Your task to perform on an android device: create a new album in the google photos Image 0: 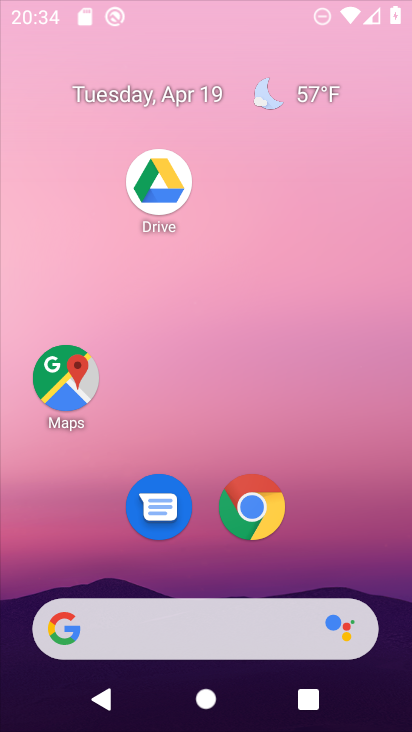
Step 0: drag from (349, 322) to (340, 147)
Your task to perform on an android device: create a new album in the google photos Image 1: 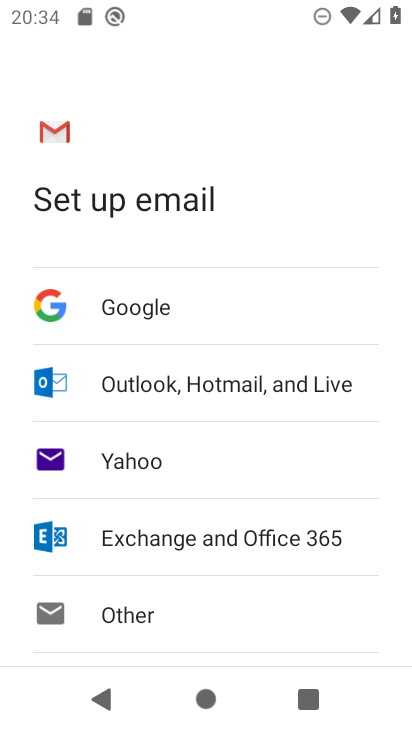
Step 1: press home button
Your task to perform on an android device: create a new album in the google photos Image 2: 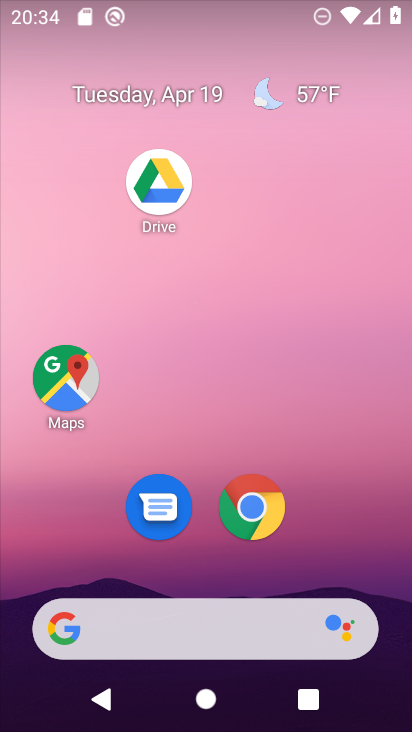
Step 2: drag from (333, 459) to (328, 134)
Your task to perform on an android device: create a new album in the google photos Image 3: 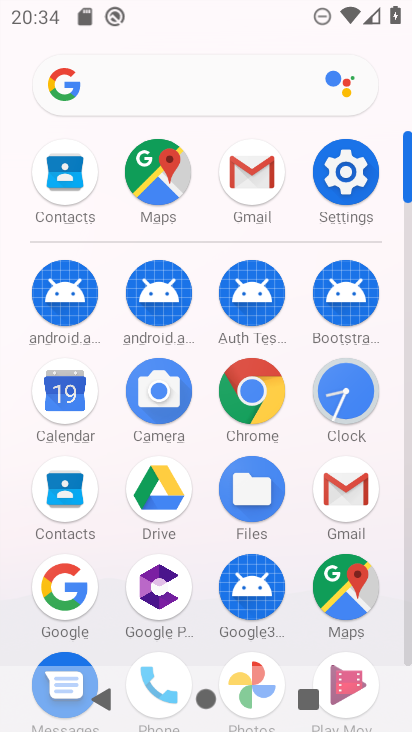
Step 3: drag from (295, 430) to (314, 98)
Your task to perform on an android device: create a new album in the google photos Image 4: 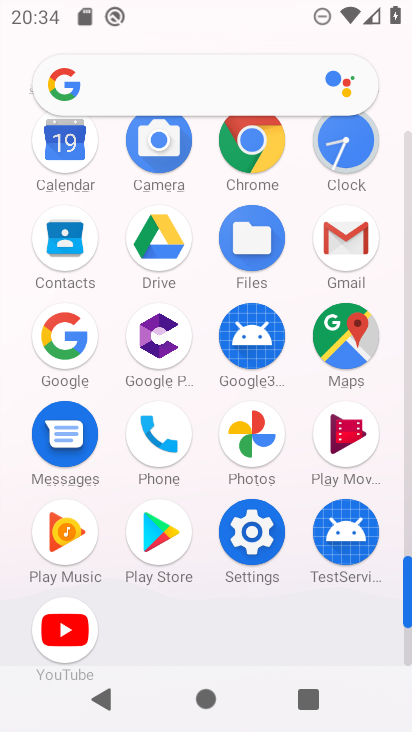
Step 4: click (270, 423)
Your task to perform on an android device: create a new album in the google photos Image 5: 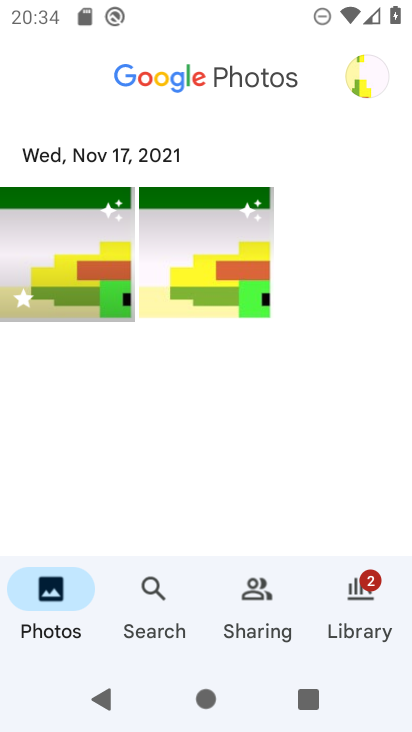
Step 5: click (360, 598)
Your task to perform on an android device: create a new album in the google photos Image 6: 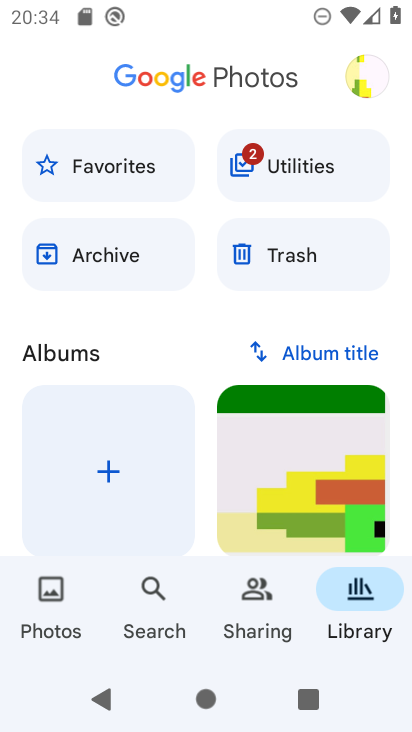
Step 6: click (103, 457)
Your task to perform on an android device: create a new album in the google photos Image 7: 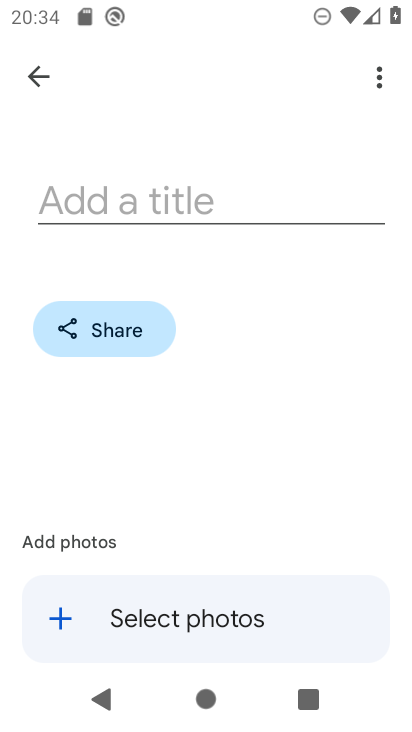
Step 7: click (180, 192)
Your task to perform on an android device: create a new album in the google photos Image 8: 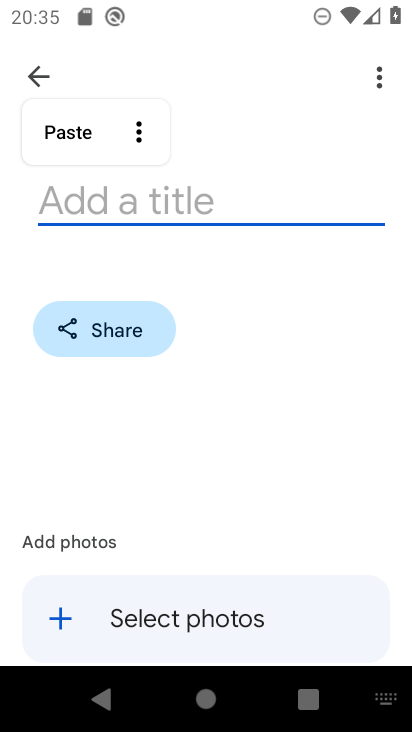
Step 8: type "Ayodhya Shri Ram Mandir"
Your task to perform on an android device: create a new album in the google photos Image 9: 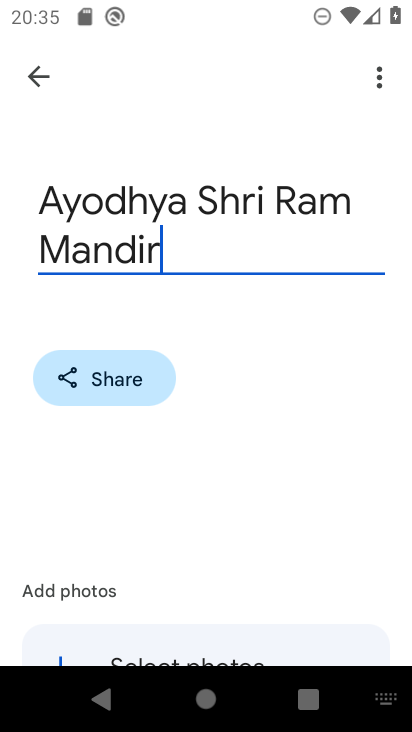
Step 9: click (108, 590)
Your task to perform on an android device: create a new album in the google photos Image 10: 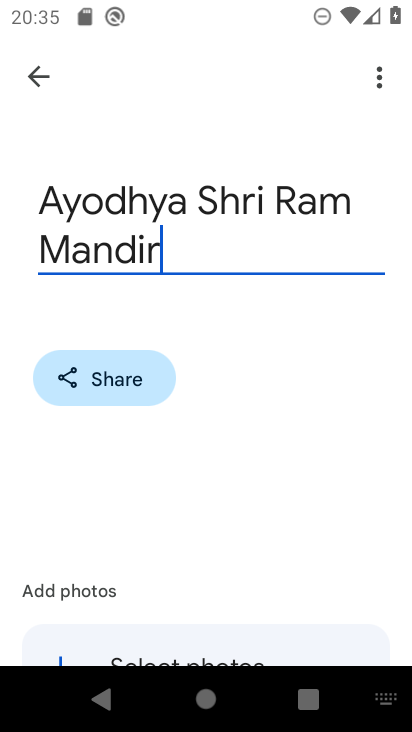
Step 10: click (97, 587)
Your task to perform on an android device: create a new album in the google photos Image 11: 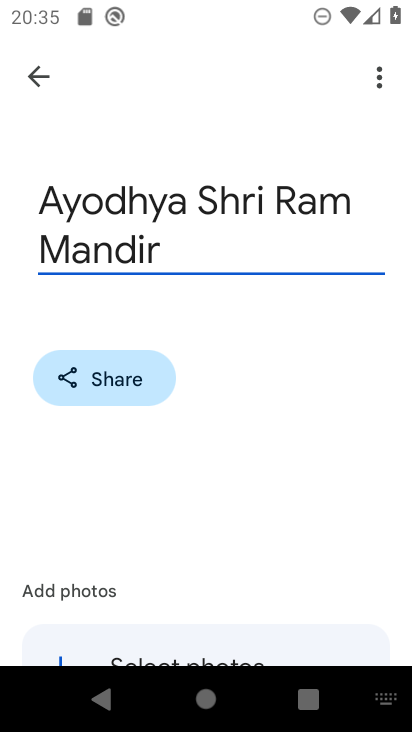
Step 11: drag from (249, 494) to (290, 271)
Your task to perform on an android device: create a new album in the google photos Image 12: 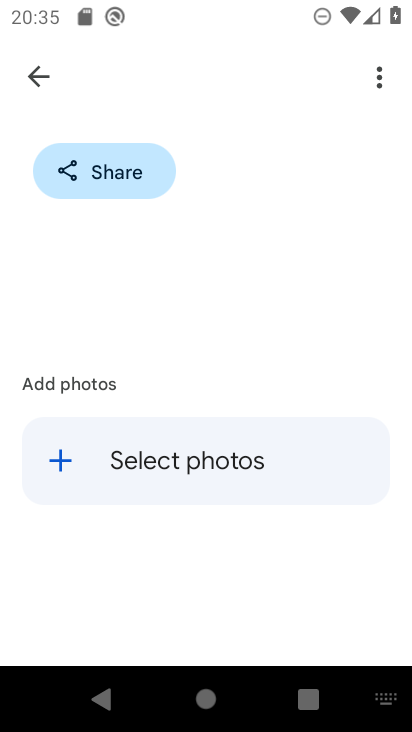
Step 12: click (218, 459)
Your task to perform on an android device: create a new album in the google photos Image 13: 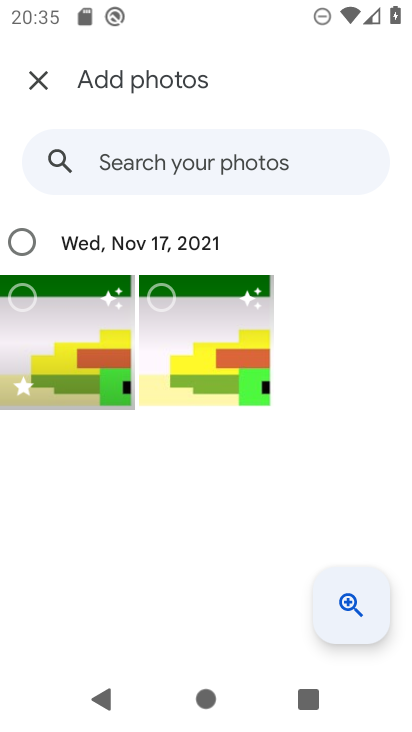
Step 13: click (168, 299)
Your task to perform on an android device: create a new album in the google photos Image 14: 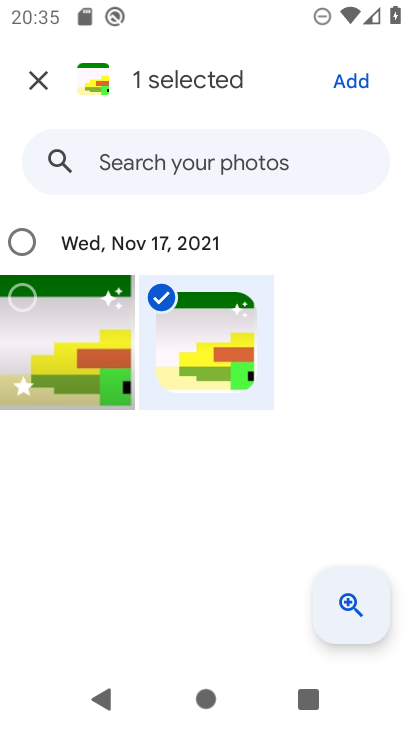
Step 14: click (351, 84)
Your task to perform on an android device: create a new album in the google photos Image 15: 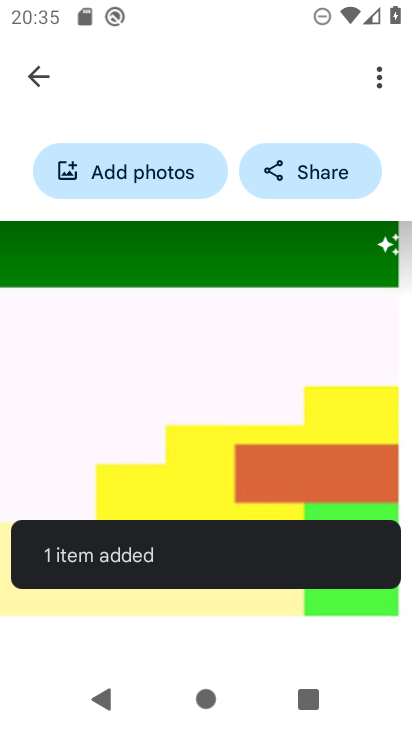
Step 15: task complete